Your task to perform on an android device: Open the map Image 0: 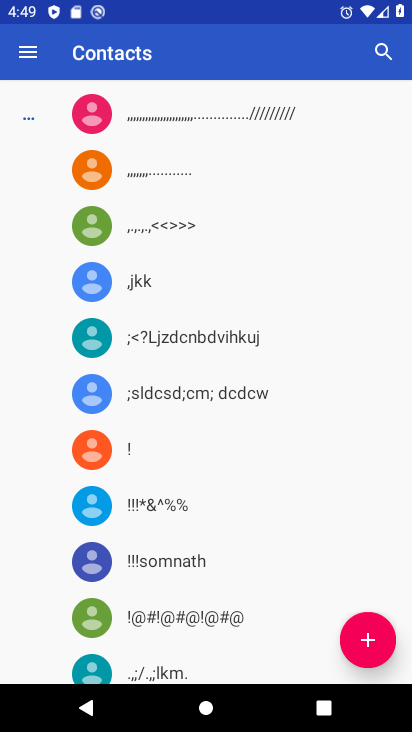
Step 0: press home button
Your task to perform on an android device: Open the map Image 1: 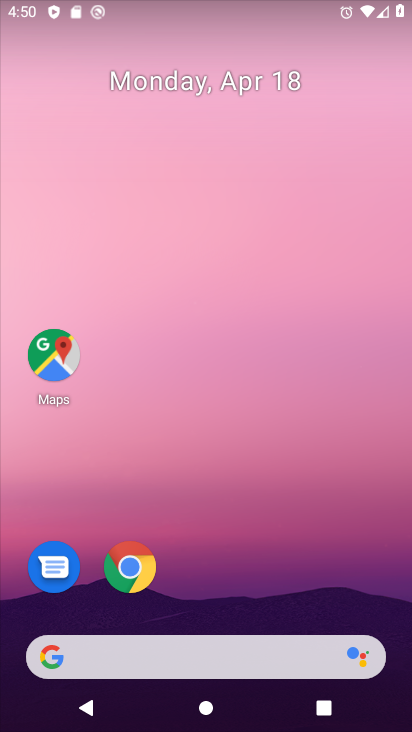
Step 1: click (49, 368)
Your task to perform on an android device: Open the map Image 2: 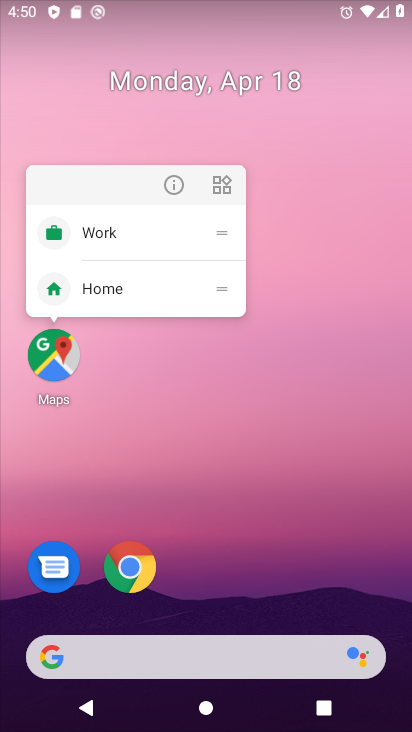
Step 2: click (49, 368)
Your task to perform on an android device: Open the map Image 3: 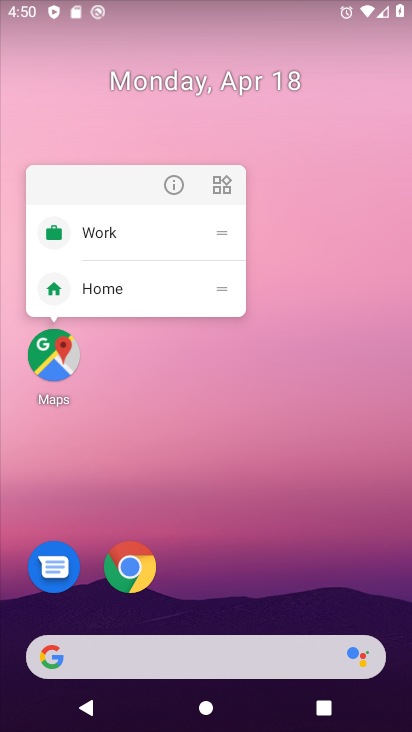
Step 3: click (60, 356)
Your task to perform on an android device: Open the map Image 4: 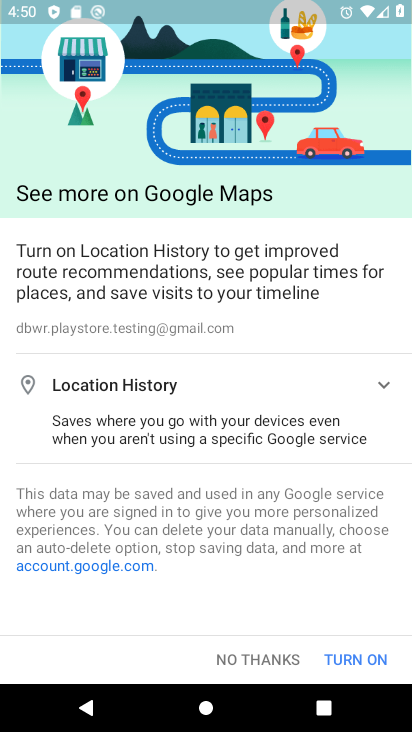
Step 4: click (281, 660)
Your task to perform on an android device: Open the map Image 5: 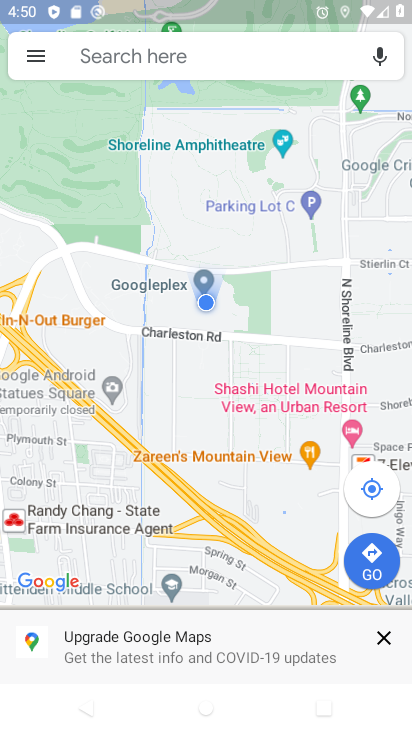
Step 5: task complete